Your task to perform on an android device: set default search engine in the chrome app Image 0: 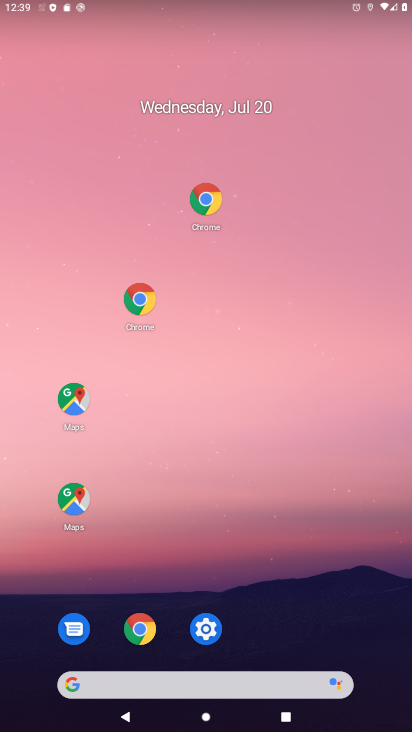
Step 0: drag from (251, 549) to (408, 167)
Your task to perform on an android device: set default search engine in the chrome app Image 1: 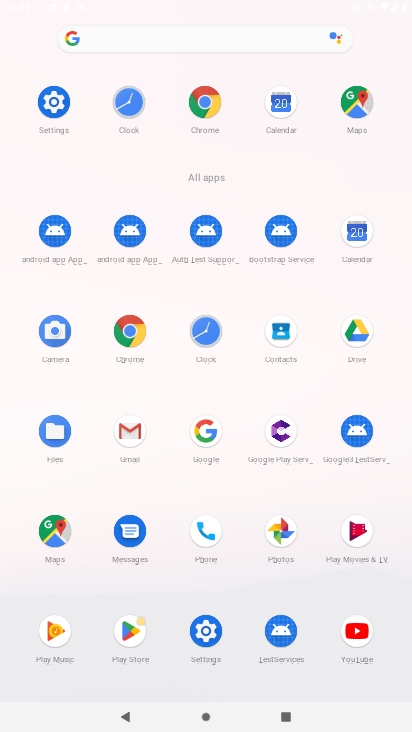
Step 1: click (206, 105)
Your task to perform on an android device: set default search engine in the chrome app Image 2: 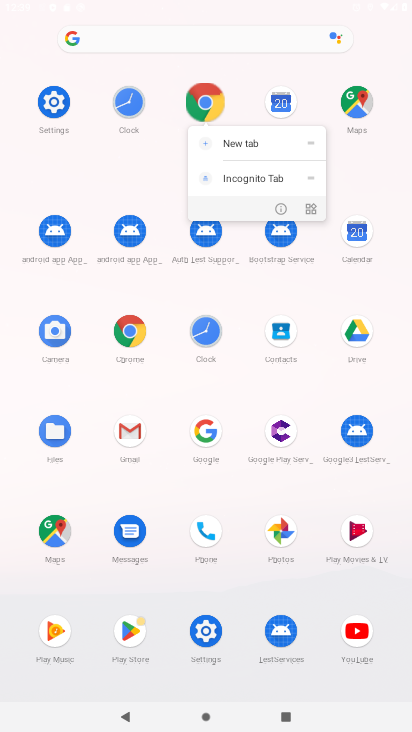
Step 2: click (206, 105)
Your task to perform on an android device: set default search engine in the chrome app Image 3: 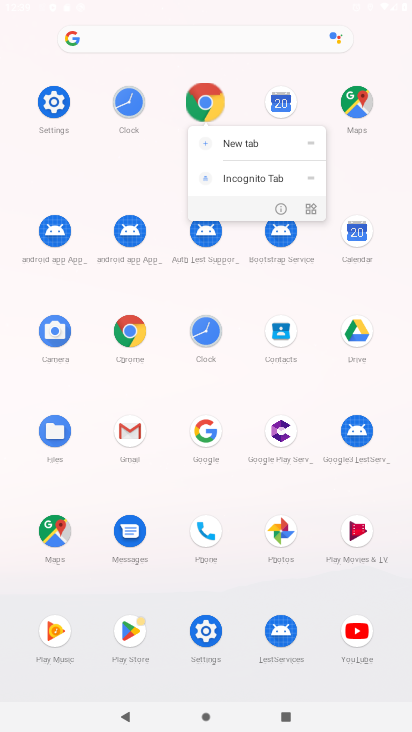
Step 3: click (206, 105)
Your task to perform on an android device: set default search engine in the chrome app Image 4: 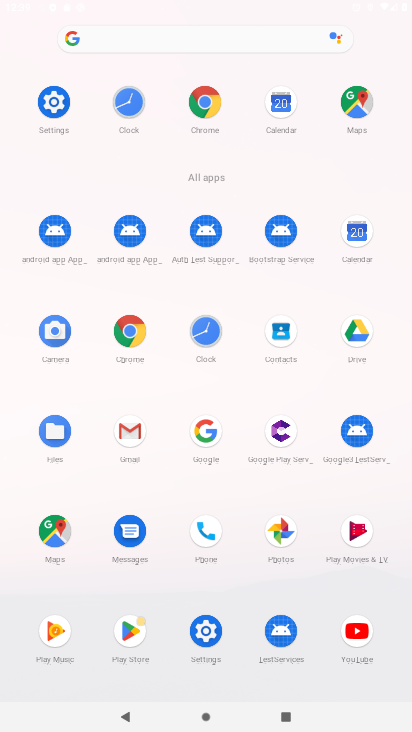
Step 4: click (206, 105)
Your task to perform on an android device: set default search engine in the chrome app Image 5: 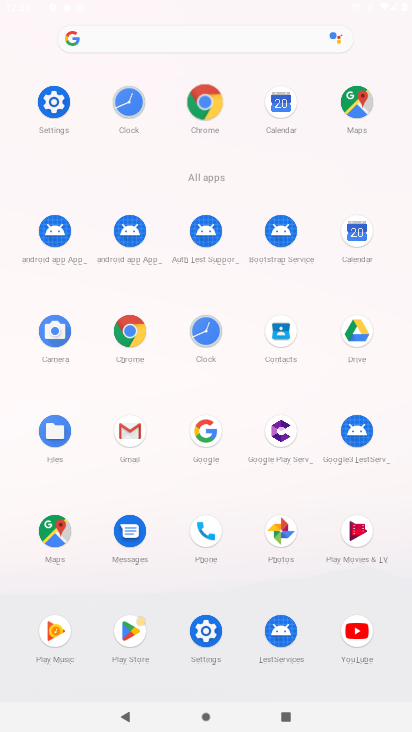
Step 5: click (206, 105)
Your task to perform on an android device: set default search engine in the chrome app Image 6: 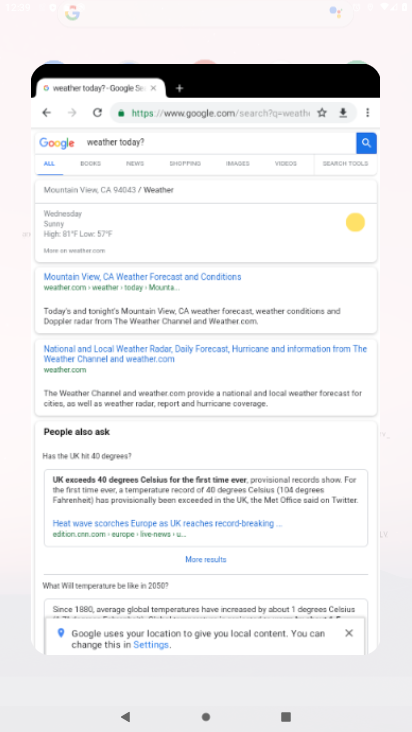
Step 6: click (207, 104)
Your task to perform on an android device: set default search engine in the chrome app Image 7: 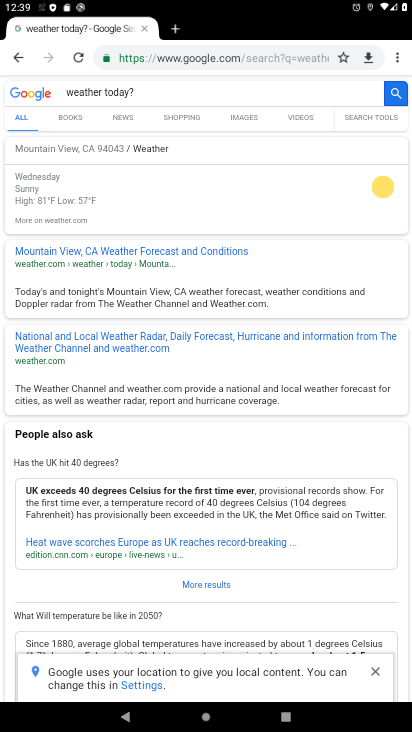
Step 7: drag from (398, 52) to (271, 353)
Your task to perform on an android device: set default search engine in the chrome app Image 8: 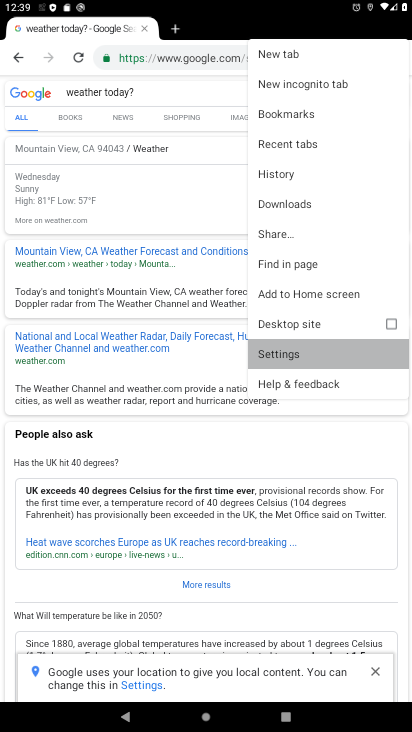
Step 8: click (277, 351)
Your task to perform on an android device: set default search engine in the chrome app Image 9: 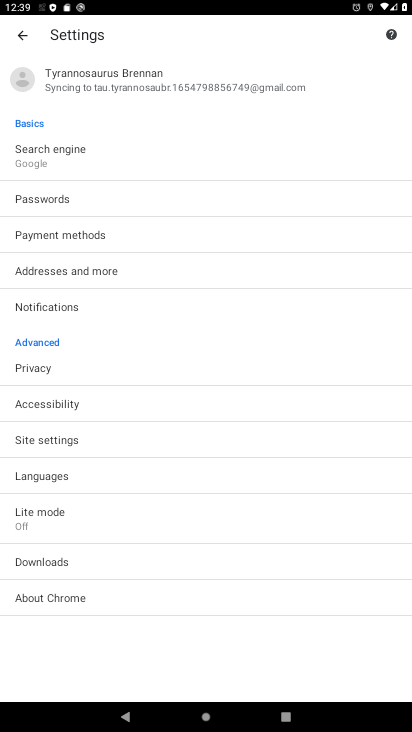
Step 9: click (42, 152)
Your task to perform on an android device: set default search engine in the chrome app Image 10: 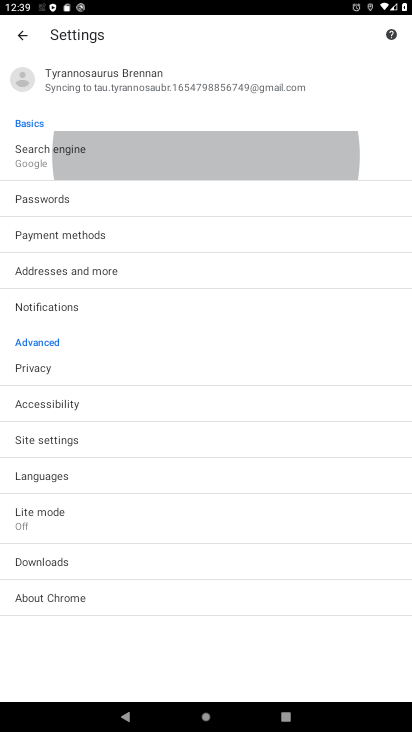
Step 10: click (42, 152)
Your task to perform on an android device: set default search engine in the chrome app Image 11: 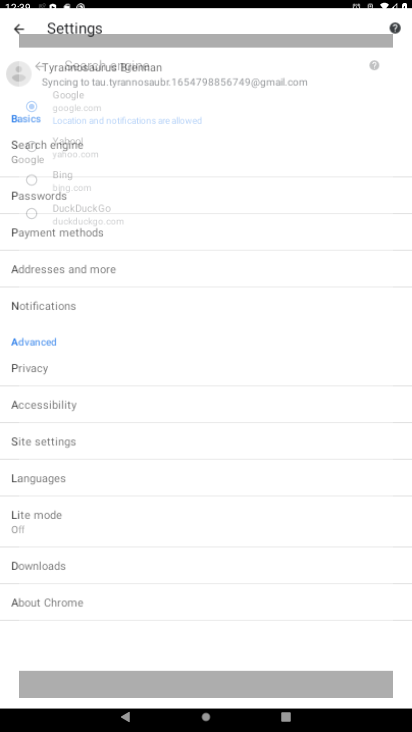
Step 11: click (42, 152)
Your task to perform on an android device: set default search engine in the chrome app Image 12: 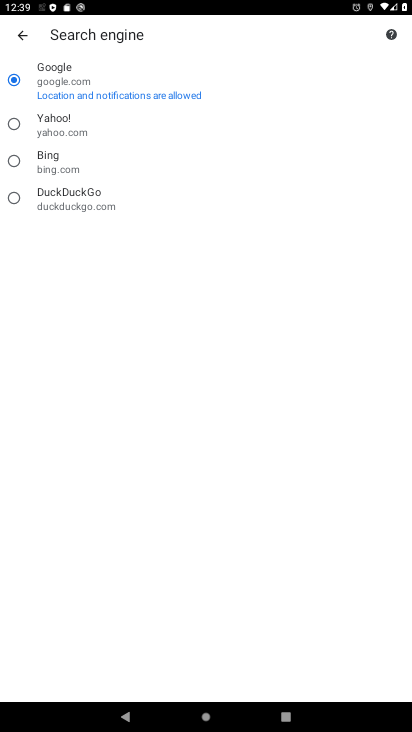
Step 12: click (42, 152)
Your task to perform on an android device: set default search engine in the chrome app Image 13: 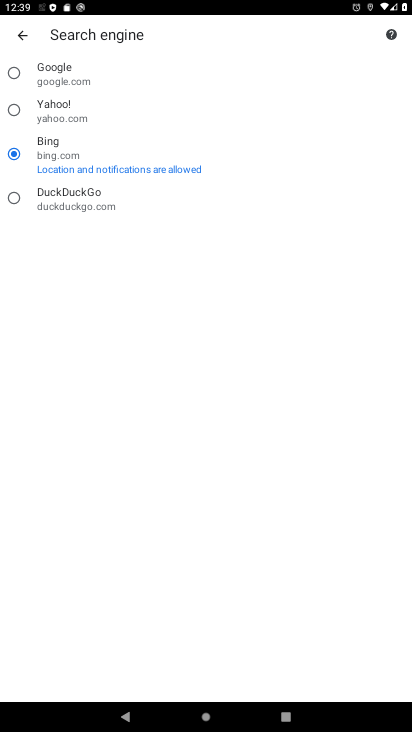
Step 13: task complete